Your task to perform on an android device: open the mobile data screen to see how much data has been used Image 0: 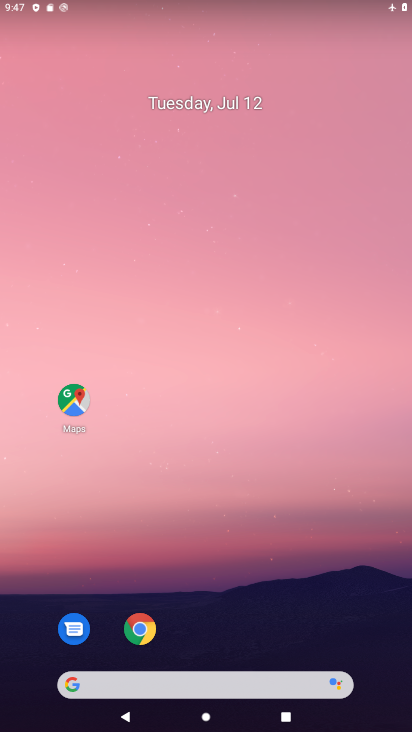
Step 0: drag from (262, 672) to (187, 47)
Your task to perform on an android device: open the mobile data screen to see how much data has been used Image 1: 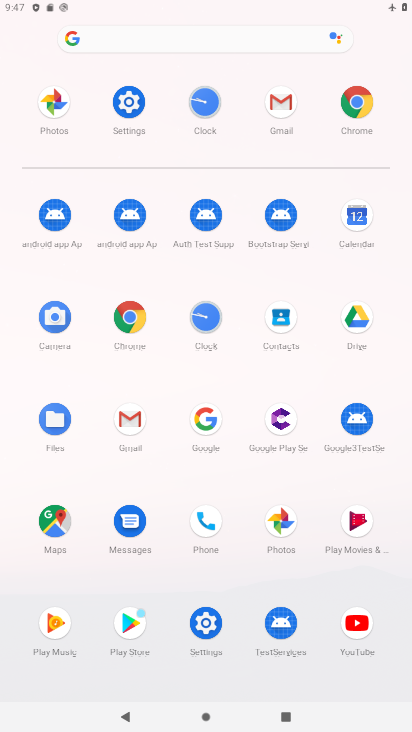
Step 1: click (128, 105)
Your task to perform on an android device: open the mobile data screen to see how much data has been used Image 2: 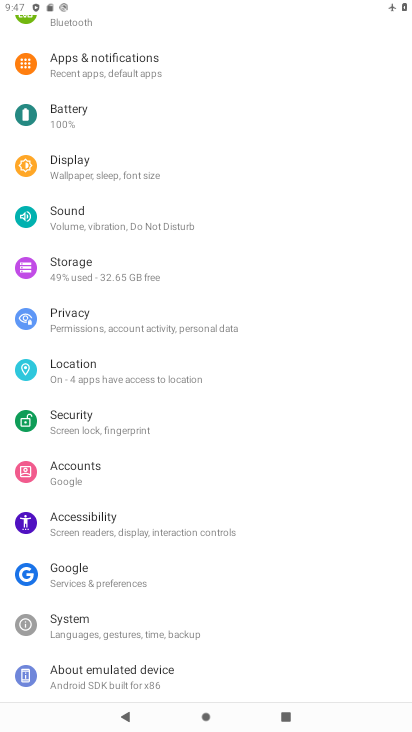
Step 2: drag from (109, 122) to (102, 616)
Your task to perform on an android device: open the mobile data screen to see how much data has been used Image 3: 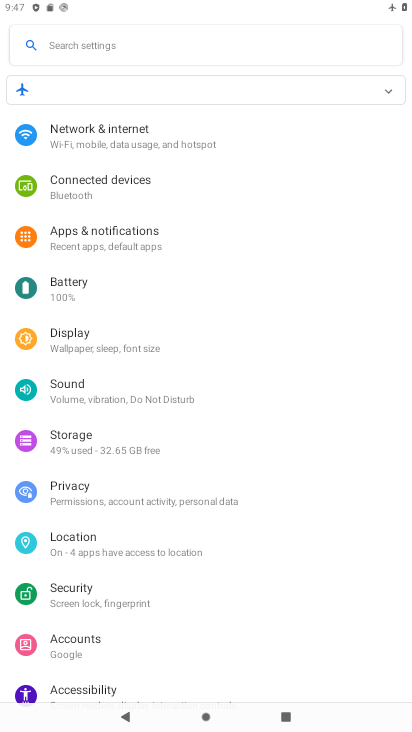
Step 3: click (154, 144)
Your task to perform on an android device: open the mobile data screen to see how much data has been used Image 4: 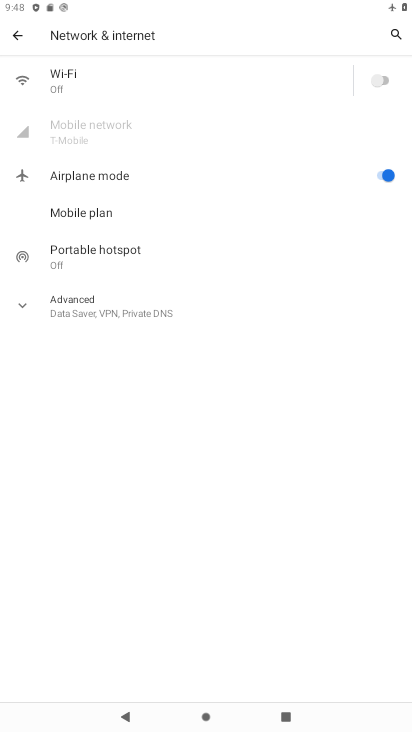
Step 4: task complete